Your task to perform on an android device: Do I have any events today? Image 0: 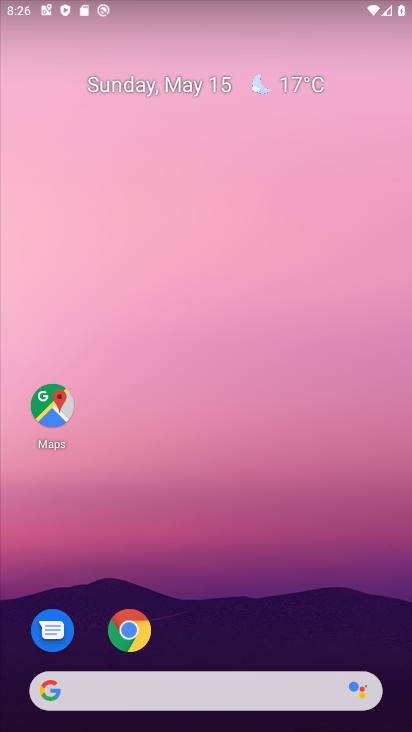
Step 0: drag from (295, 607) to (251, 56)
Your task to perform on an android device: Do I have any events today? Image 1: 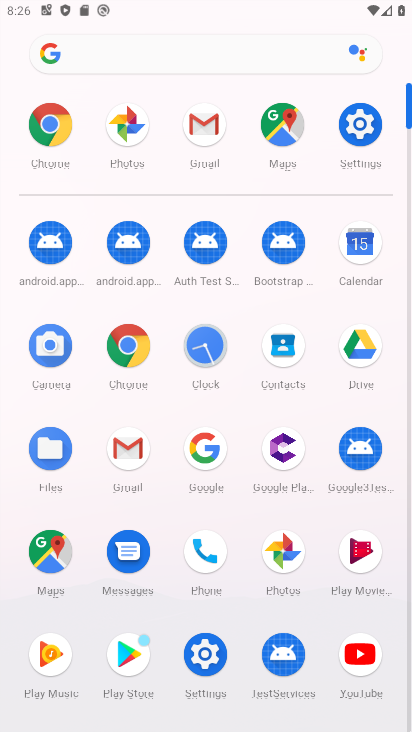
Step 1: click (375, 240)
Your task to perform on an android device: Do I have any events today? Image 2: 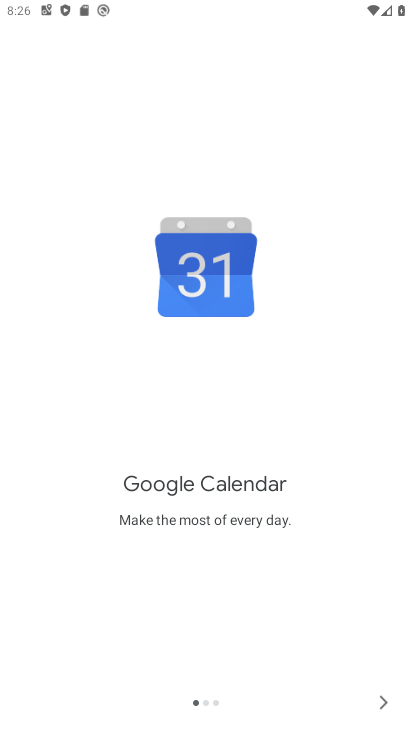
Step 2: click (383, 707)
Your task to perform on an android device: Do I have any events today? Image 3: 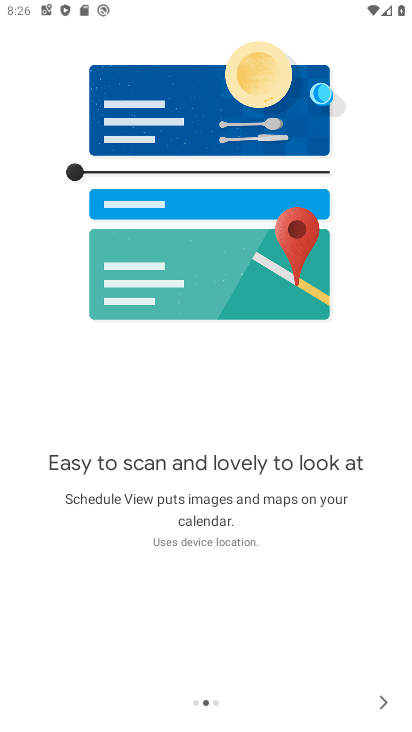
Step 3: click (384, 709)
Your task to perform on an android device: Do I have any events today? Image 4: 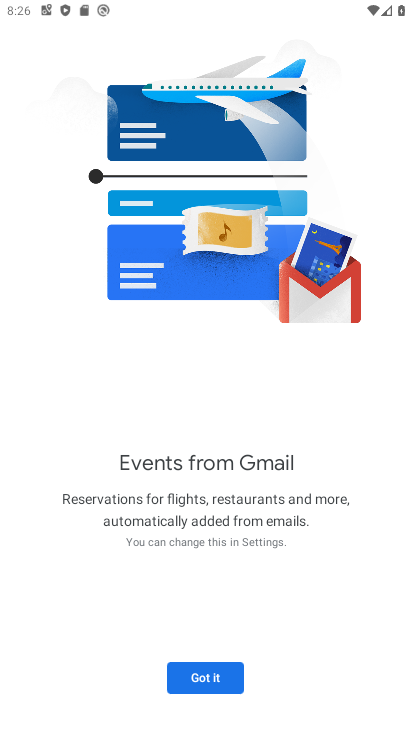
Step 4: click (213, 687)
Your task to perform on an android device: Do I have any events today? Image 5: 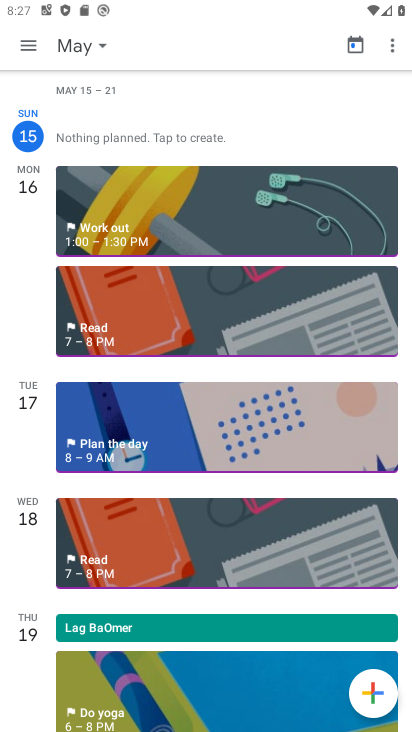
Step 5: click (75, 49)
Your task to perform on an android device: Do I have any events today? Image 6: 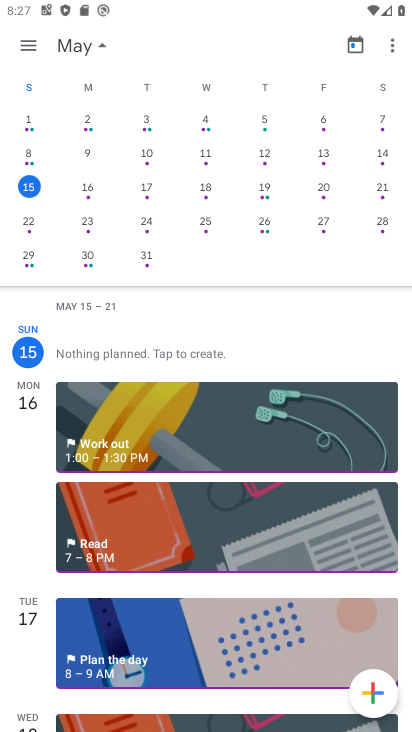
Step 6: task complete